Your task to perform on an android device: turn on notifications settings in the gmail app Image 0: 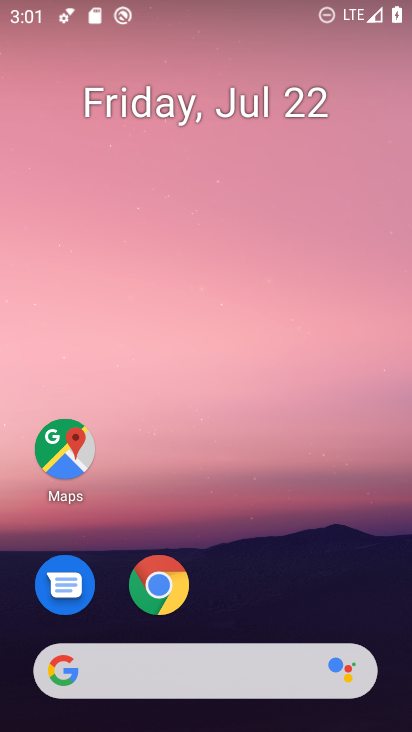
Step 0: drag from (288, 597) to (260, 86)
Your task to perform on an android device: turn on notifications settings in the gmail app Image 1: 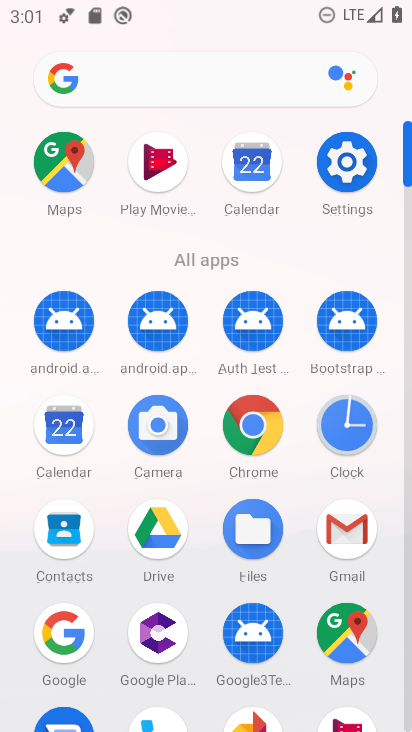
Step 1: click (342, 529)
Your task to perform on an android device: turn on notifications settings in the gmail app Image 2: 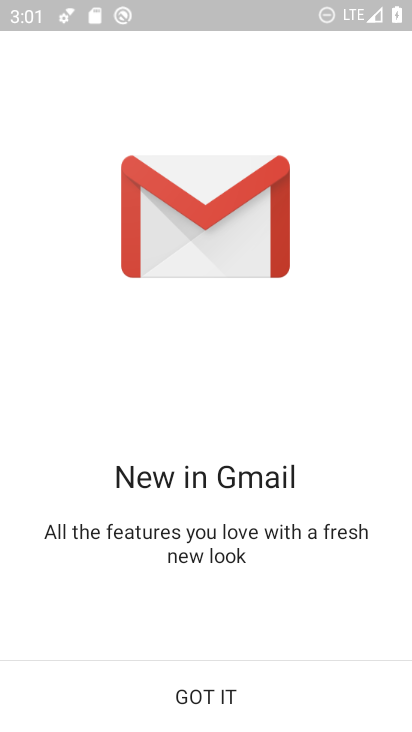
Step 2: click (256, 695)
Your task to perform on an android device: turn on notifications settings in the gmail app Image 3: 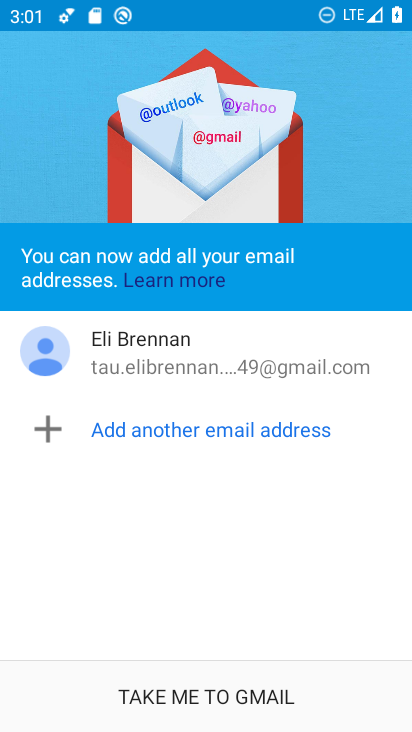
Step 3: click (247, 690)
Your task to perform on an android device: turn on notifications settings in the gmail app Image 4: 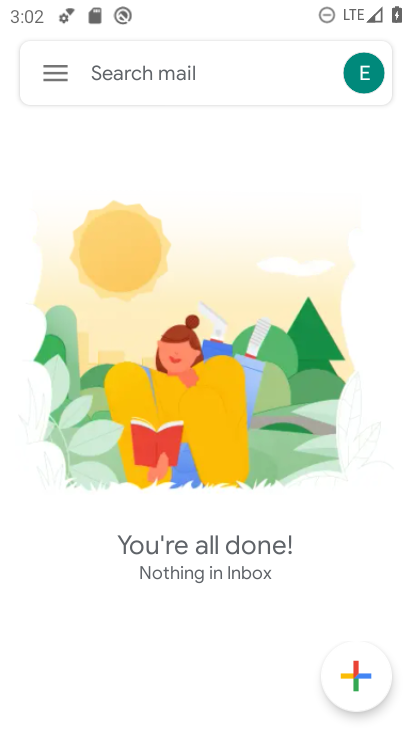
Step 4: click (65, 78)
Your task to perform on an android device: turn on notifications settings in the gmail app Image 5: 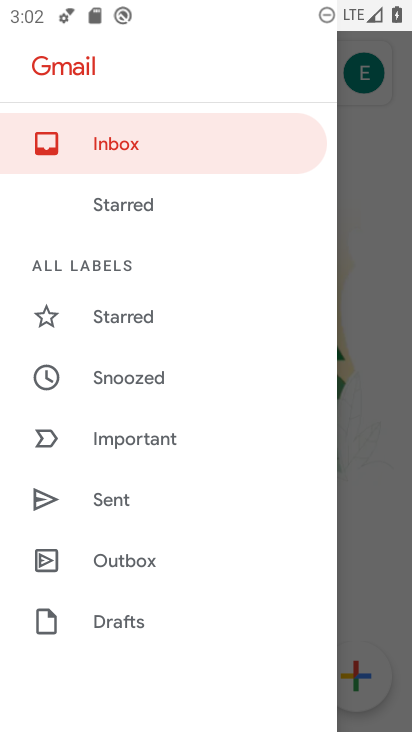
Step 5: drag from (170, 509) to (184, 73)
Your task to perform on an android device: turn on notifications settings in the gmail app Image 6: 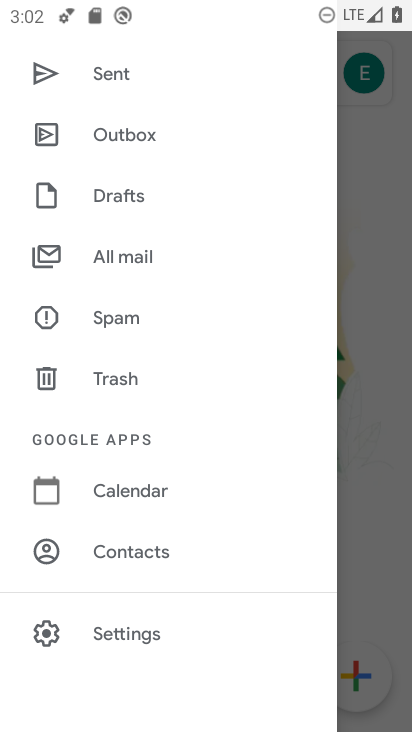
Step 6: drag from (180, 497) to (170, 221)
Your task to perform on an android device: turn on notifications settings in the gmail app Image 7: 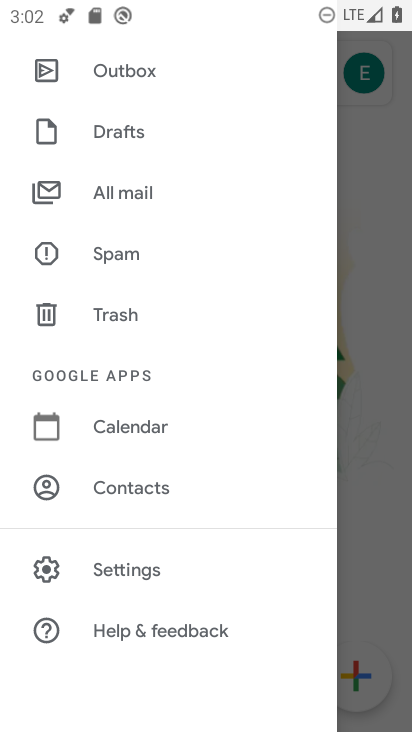
Step 7: click (134, 567)
Your task to perform on an android device: turn on notifications settings in the gmail app Image 8: 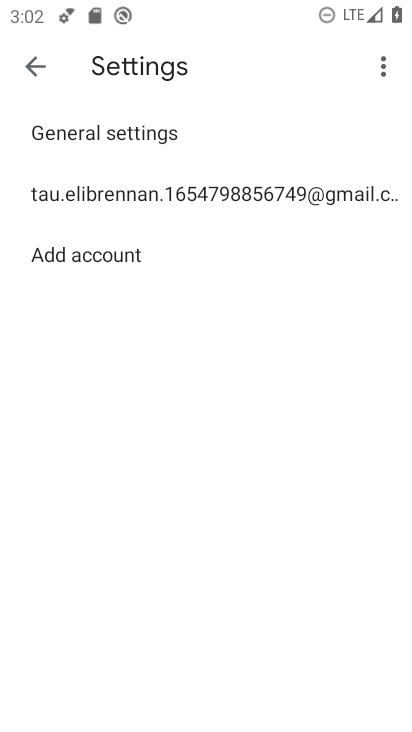
Step 8: click (229, 196)
Your task to perform on an android device: turn on notifications settings in the gmail app Image 9: 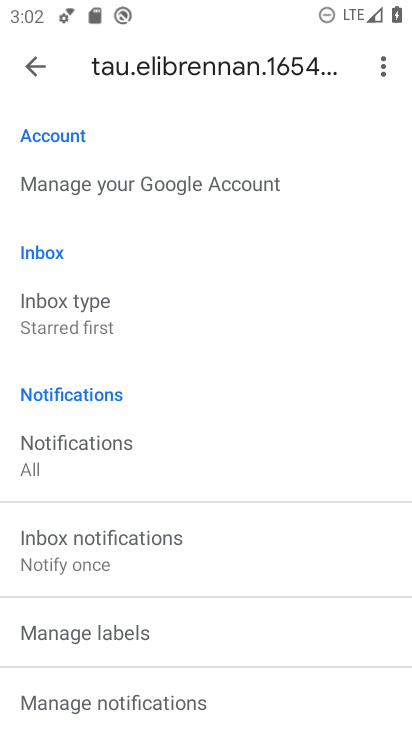
Step 9: click (174, 695)
Your task to perform on an android device: turn on notifications settings in the gmail app Image 10: 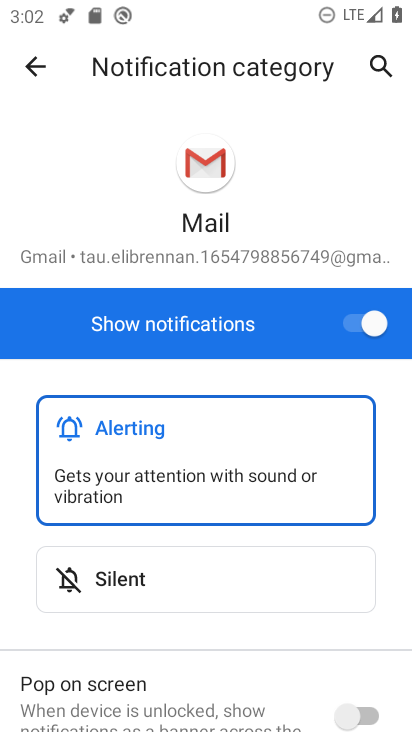
Step 10: task complete